Your task to perform on an android device: Go to location settings Image 0: 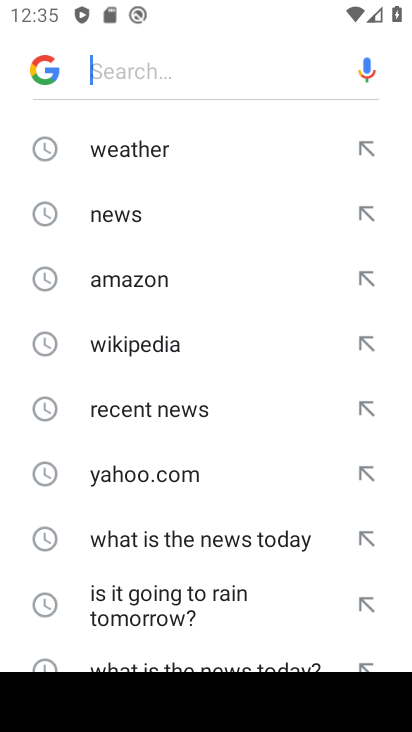
Step 0: press home button
Your task to perform on an android device: Go to location settings Image 1: 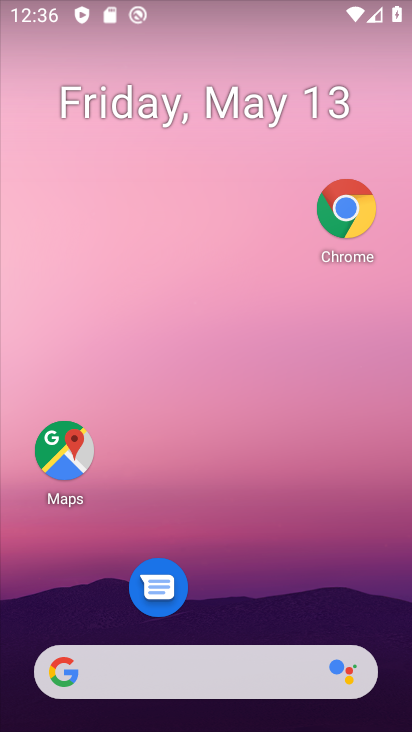
Step 1: drag from (255, 481) to (290, 55)
Your task to perform on an android device: Go to location settings Image 2: 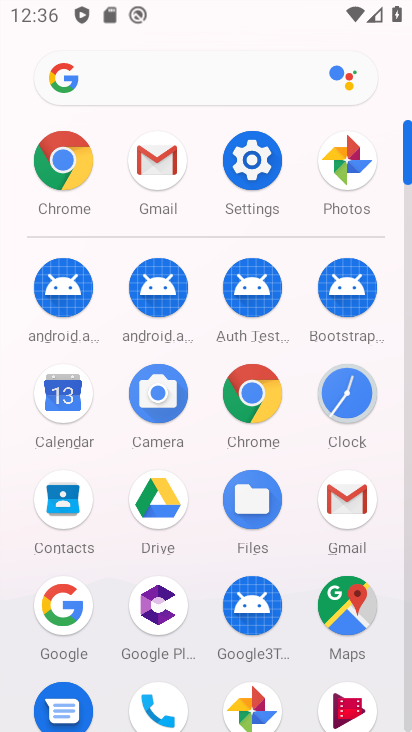
Step 2: click (247, 165)
Your task to perform on an android device: Go to location settings Image 3: 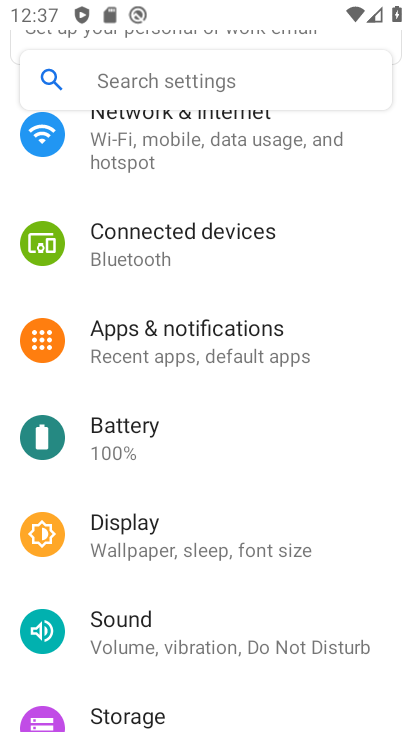
Step 3: drag from (124, 625) to (277, 68)
Your task to perform on an android device: Go to location settings Image 4: 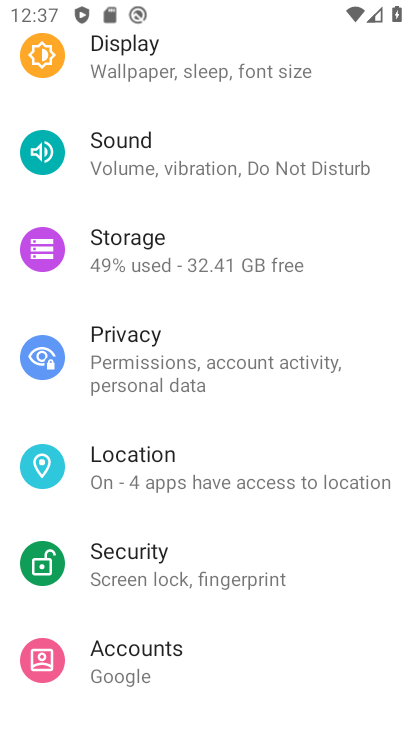
Step 4: click (124, 475)
Your task to perform on an android device: Go to location settings Image 5: 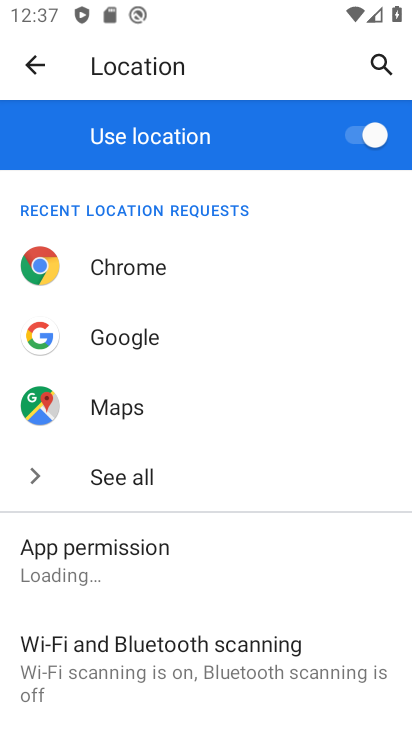
Step 5: task complete